Your task to perform on an android device: check the backup settings in the google photos Image 0: 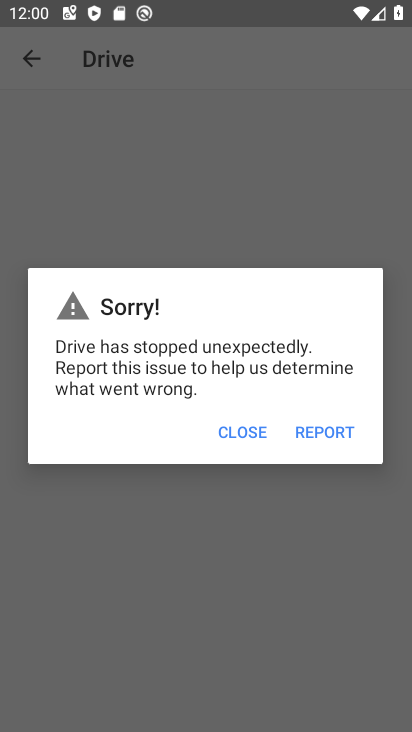
Step 0: press home button
Your task to perform on an android device: check the backup settings in the google photos Image 1: 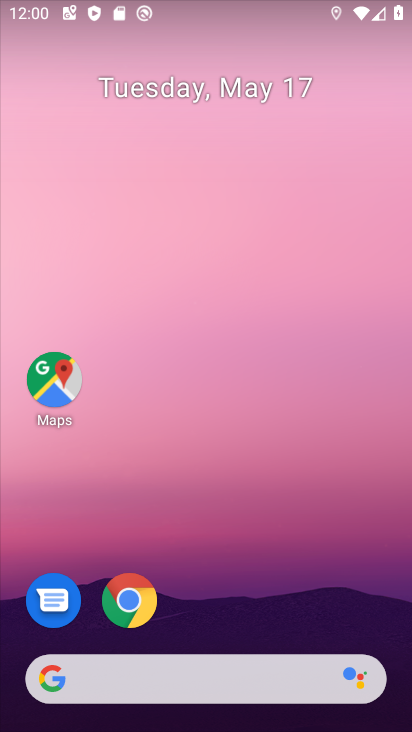
Step 1: drag from (264, 616) to (237, 49)
Your task to perform on an android device: check the backup settings in the google photos Image 2: 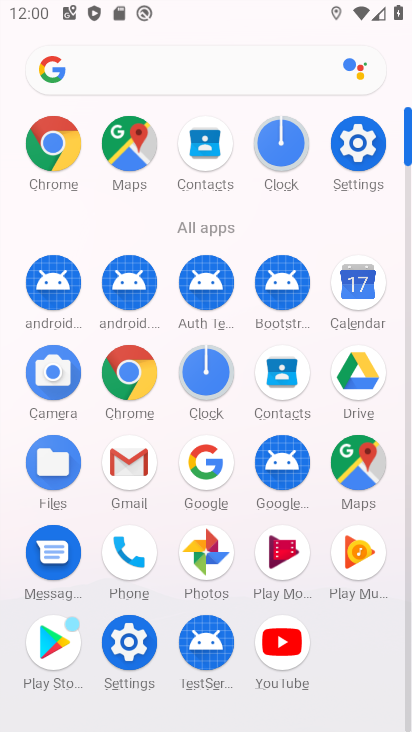
Step 2: click (237, 49)
Your task to perform on an android device: check the backup settings in the google photos Image 3: 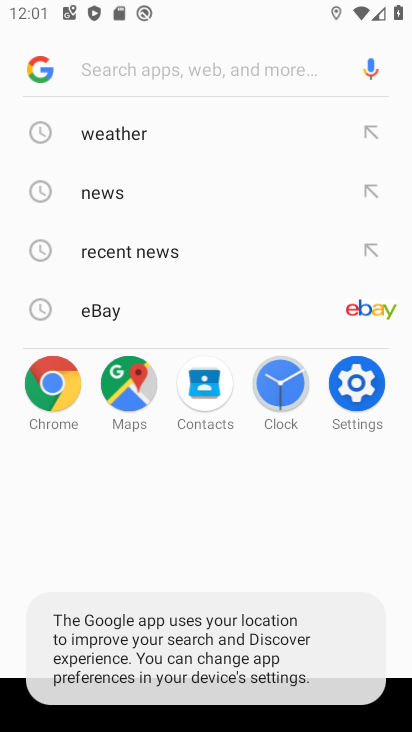
Step 3: press home button
Your task to perform on an android device: check the backup settings in the google photos Image 4: 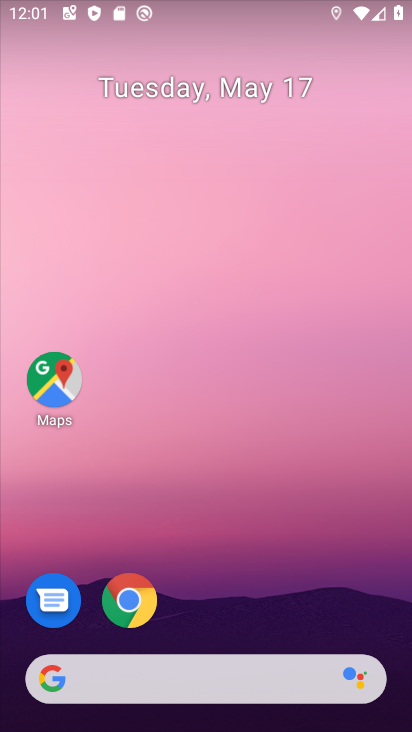
Step 4: drag from (240, 613) to (200, 142)
Your task to perform on an android device: check the backup settings in the google photos Image 5: 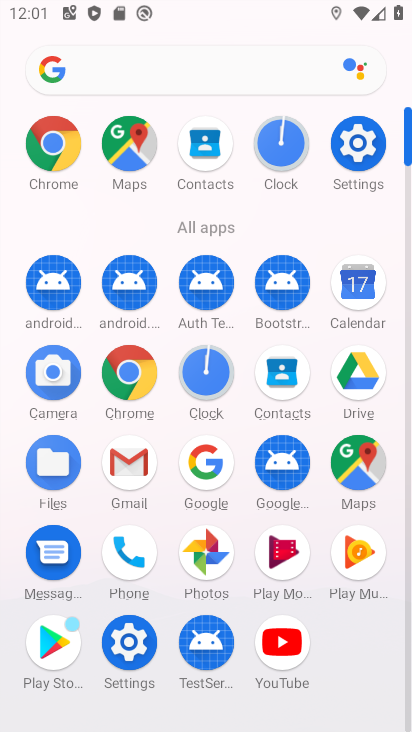
Step 5: click (195, 571)
Your task to perform on an android device: check the backup settings in the google photos Image 6: 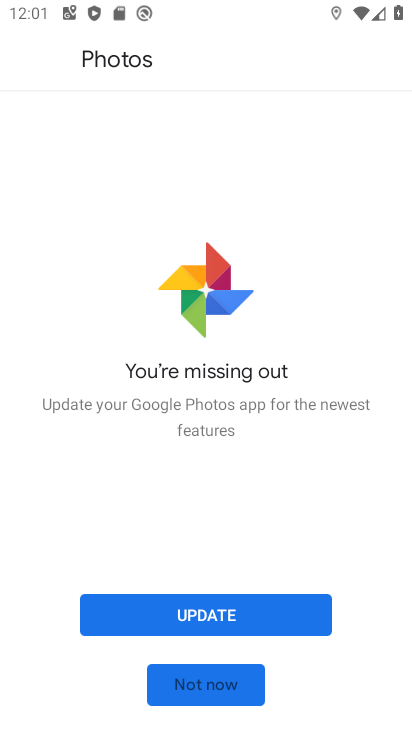
Step 6: click (224, 621)
Your task to perform on an android device: check the backup settings in the google photos Image 7: 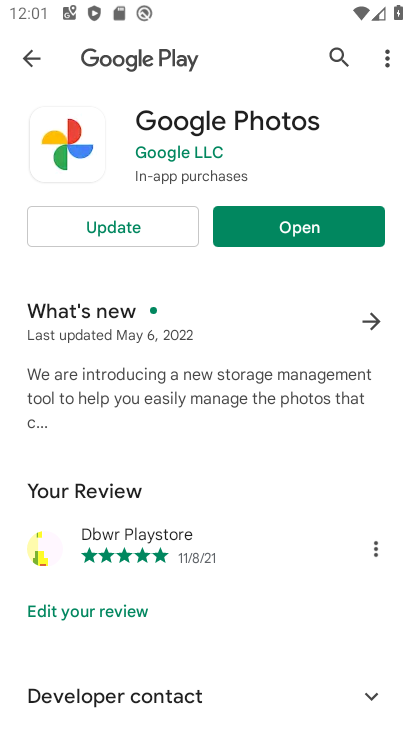
Step 7: click (140, 241)
Your task to perform on an android device: check the backup settings in the google photos Image 8: 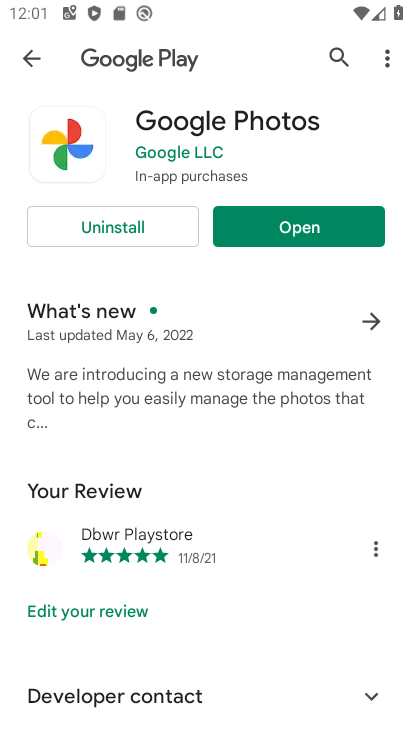
Step 8: click (259, 234)
Your task to perform on an android device: check the backup settings in the google photos Image 9: 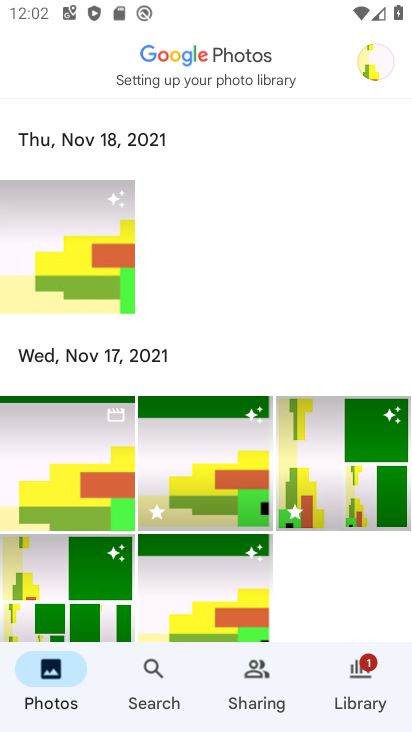
Step 9: click (387, 51)
Your task to perform on an android device: check the backup settings in the google photos Image 10: 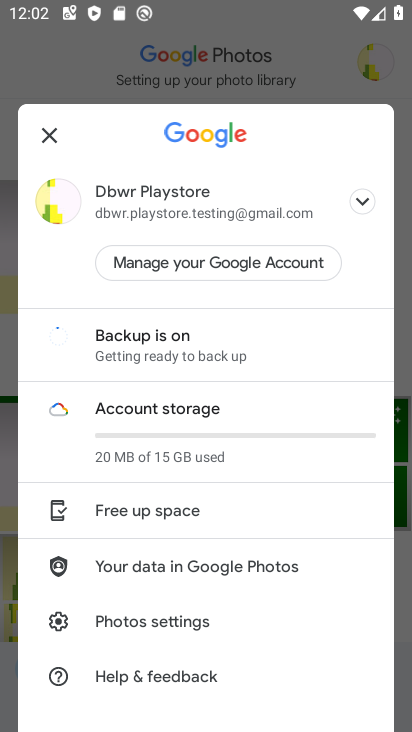
Step 10: click (279, 356)
Your task to perform on an android device: check the backup settings in the google photos Image 11: 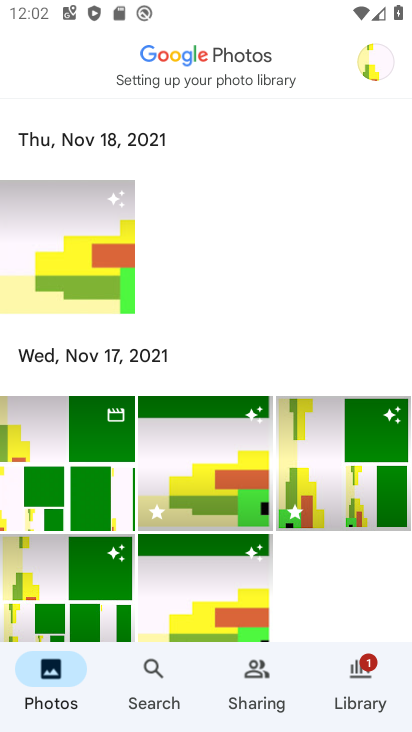
Step 11: click (382, 60)
Your task to perform on an android device: check the backup settings in the google photos Image 12: 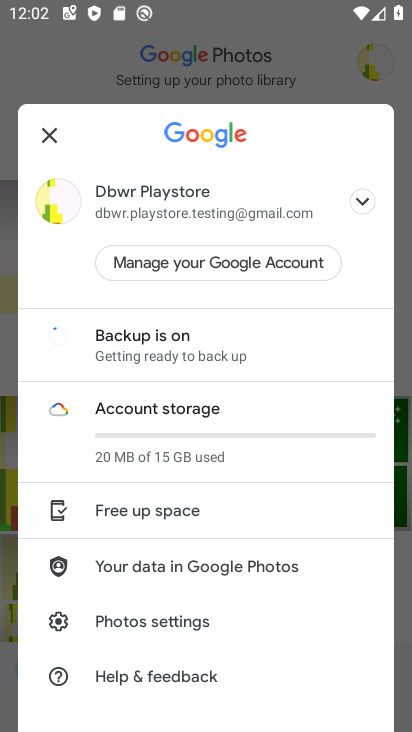
Step 12: click (116, 350)
Your task to perform on an android device: check the backup settings in the google photos Image 13: 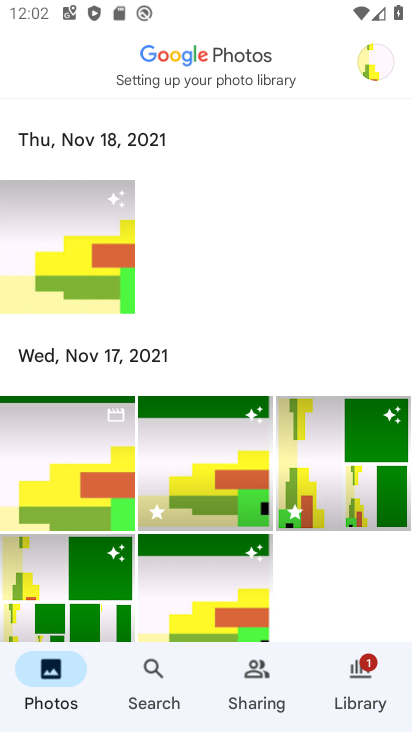
Step 13: click (377, 54)
Your task to perform on an android device: check the backup settings in the google photos Image 14: 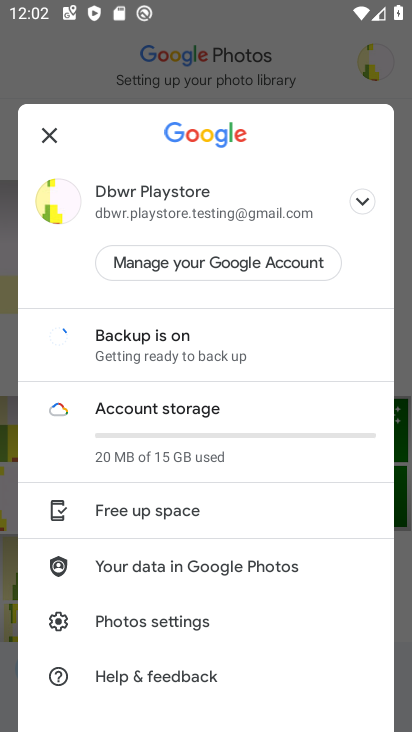
Step 14: click (158, 643)
Your task to perform on an android device: check the backup settings in the google photos Image 15: 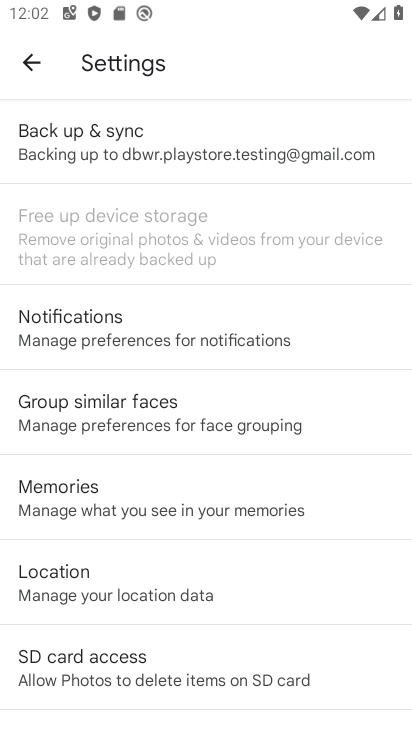
Step 15: click (257, 171)
Your task to perform on an android device: check the backup settings in the google photos Image 16: 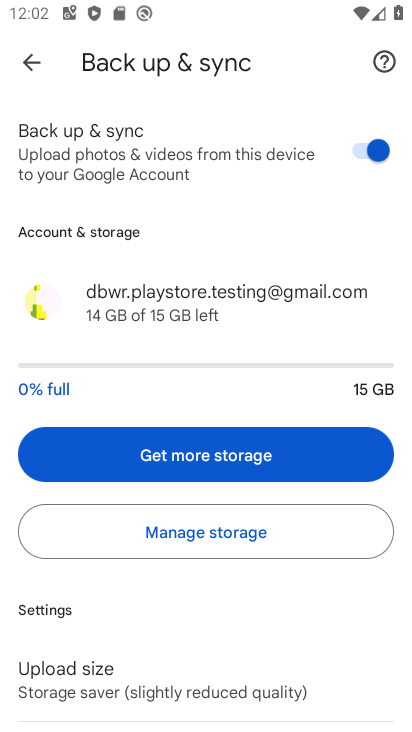
Step 16: task complete